Your task to perform on an android device: change text size in settings app Image 0: 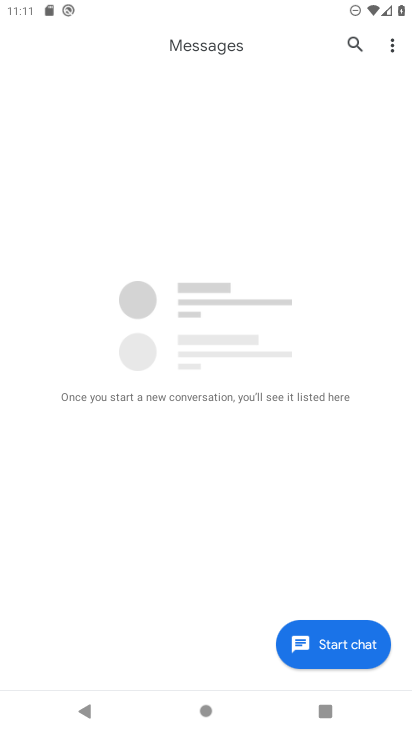
Step 0: press home button
Your task to perform on an android device: change text size in settings app Image 1: 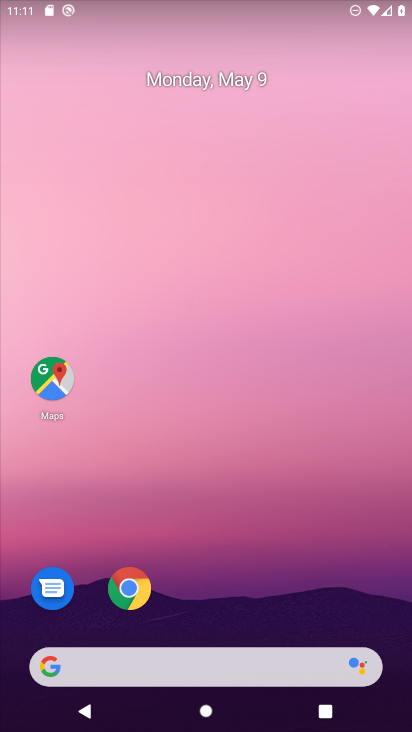
Step 1: drag from (238, 569) to (227, 11)
Your task to perform on an android device: change text size in settings app Image 2: 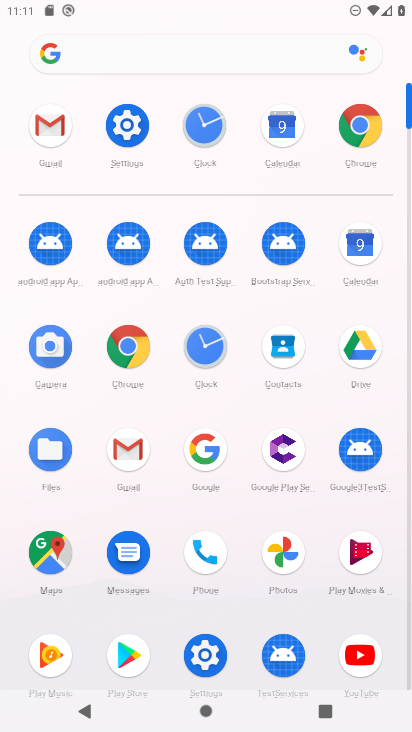
Step 2: click (128, 170)
Your task to perform on an android device: change text size in settings app Image 3: 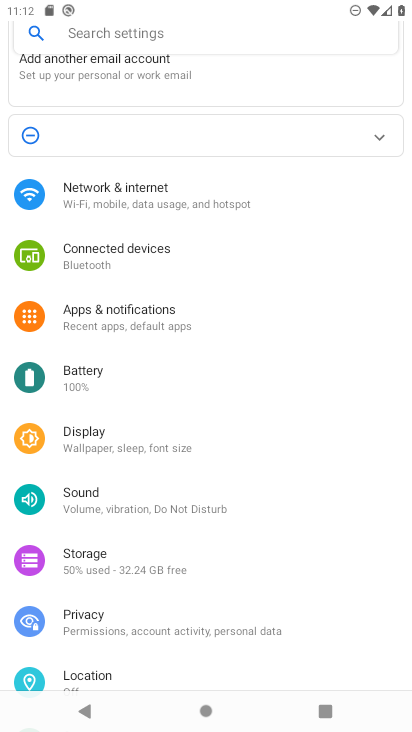
Step 3: click (175, 453)
Your task to perform on an android device: change text size in settings app Image 4: 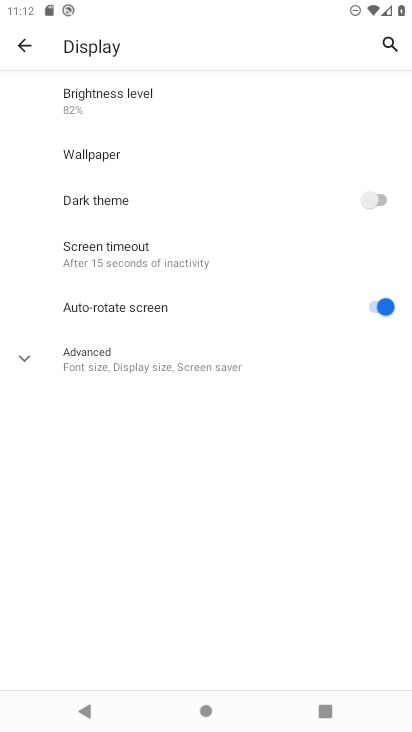
Step 4: click (172, 348)
Your task to perform on an android device: change text size in settings app Image 5: 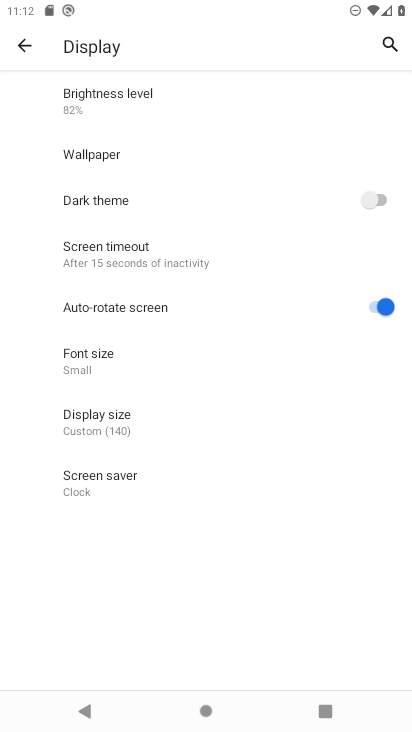
Step 5: click (171, 347)
Your task to perform on an android device: change text size in settings app Image 6: 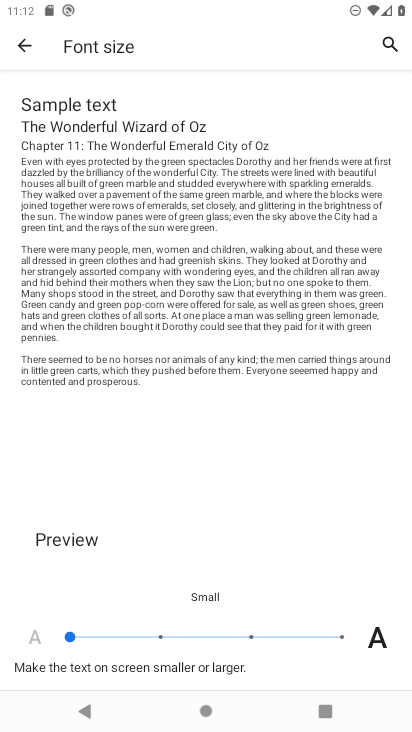
Step 6: click (241, 638)
Your task to perform on an android device: change text size in settings app Image 7: 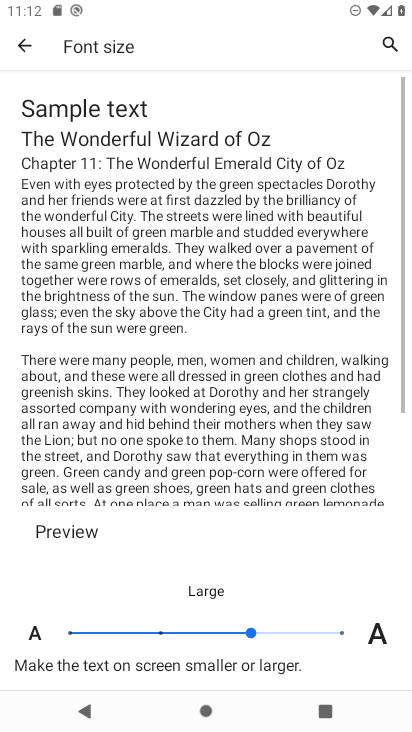
Step 7: task complete